Your task to perform on an android device: delete location history Image 0: 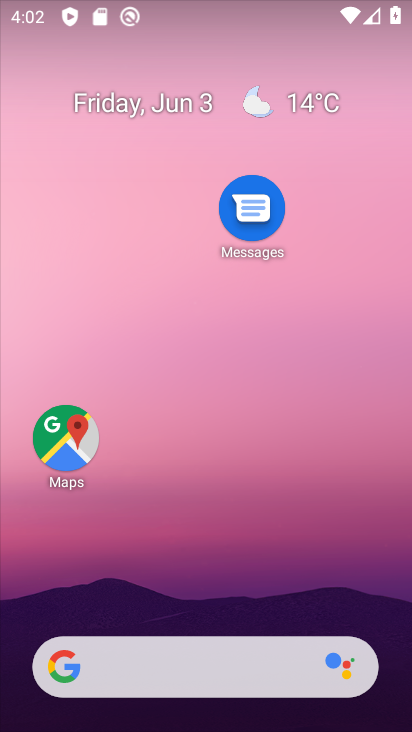
Step 0: drag from (174, 607) to (201, 261)
Your task to perform on an android device: delete location history Image 1: 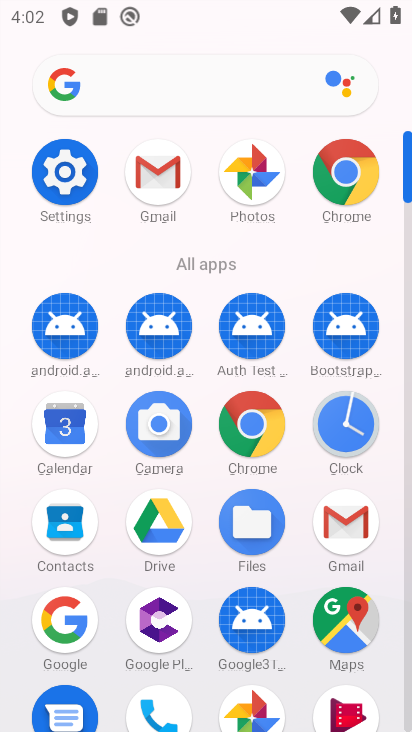
Step 1: click (61, 176)
Your task to perform on an android device: delete location history Image 2: 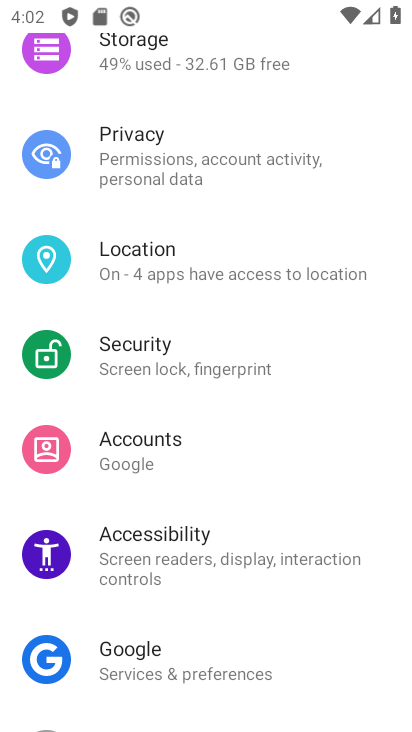
Step 2: click (160, 266)
Your task to perform on an android device: delete location history Image 3: 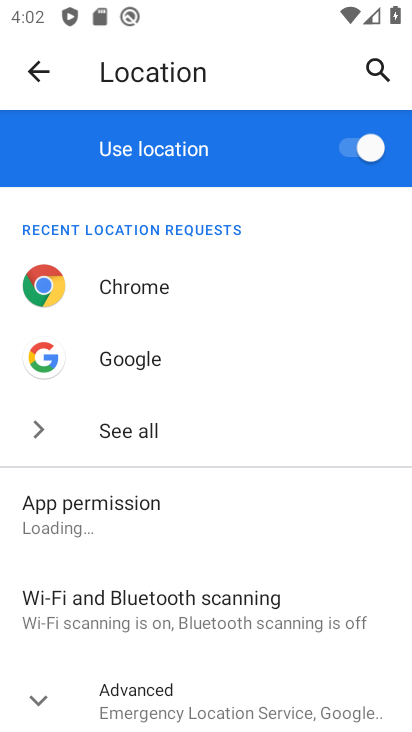
Step 3: drag from (137, 661) to (156, 551)
Your task to perform on an android device: delete location history Image 4: 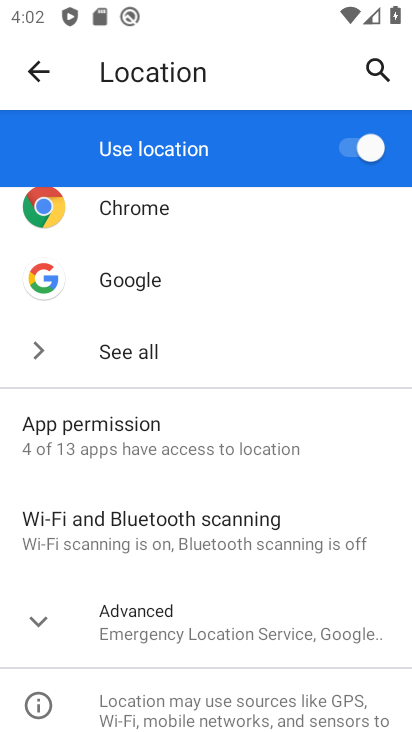
Step 4: click (128, 623)
Your task to perform on an android device: delete location history Image 5: 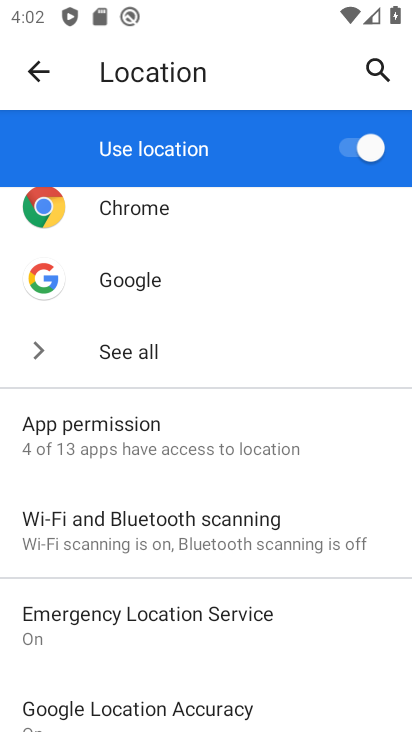
Step 5: drag from (156, 676) to (190, 547)
Your task to perform on an android device: delete location history Image 6: 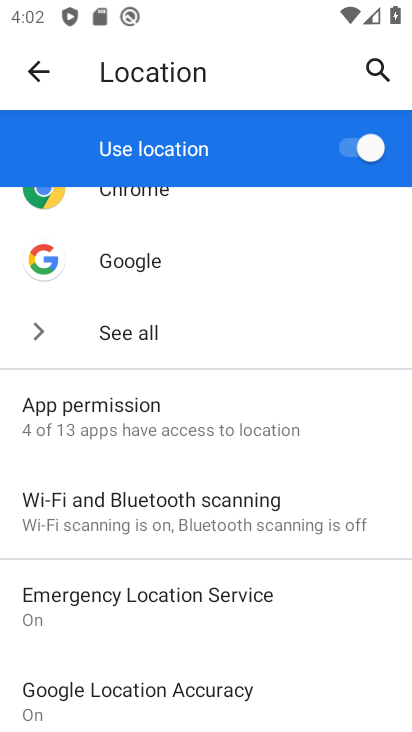
Step 6: drag from (209, 660) to (267, 471)
Your task to perform on an android device: delete location history Image 7: 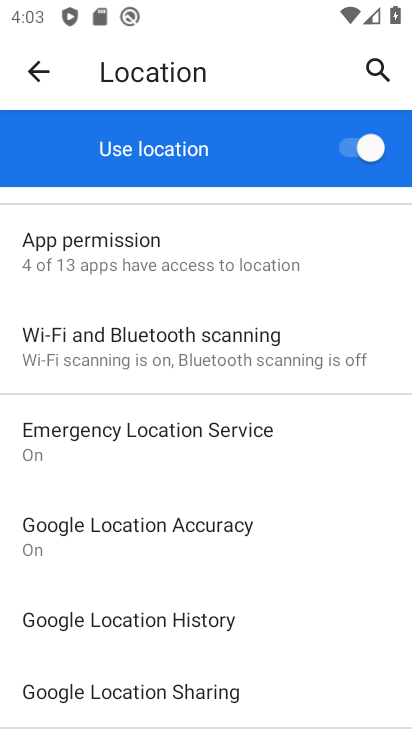
Step 7: click (206, 626)
Your task to perform on an android device: delete location history Image 8: 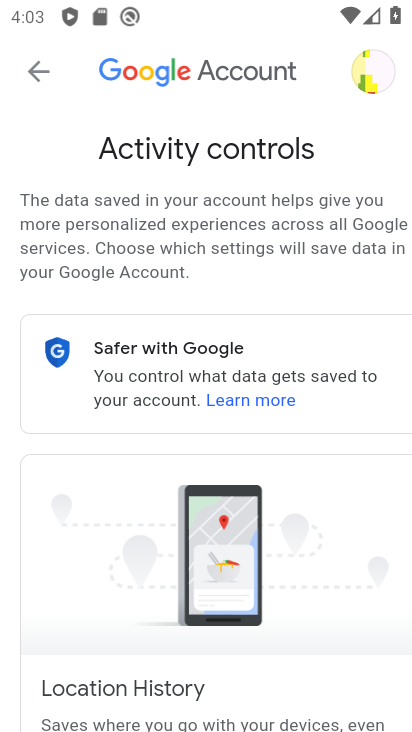
Step 8: drag from (259, 657) to (279, 502)
Your task to perform on an android device: delete location history Image 9: 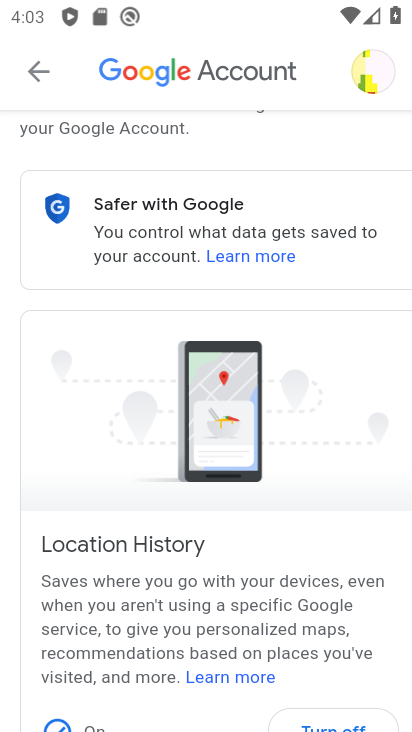
Step 9: drag from (265, 623) to (285, 519)
Your task to perform on an android device: delete location history Image 10: 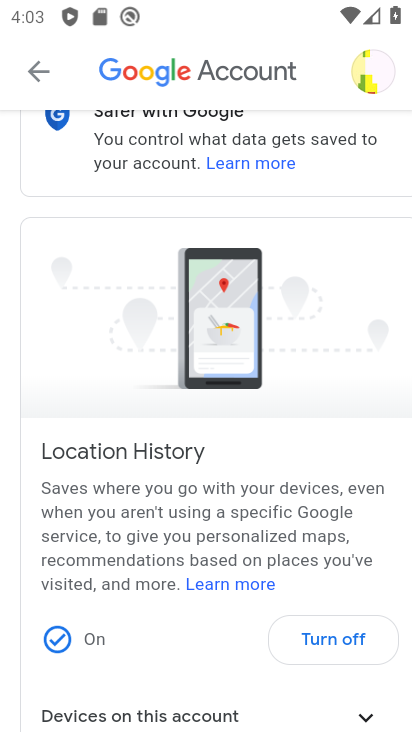
Step 10: drag from (246, 653) to (283, 484)
Your task to perform on an android device: delete location history Image 11: 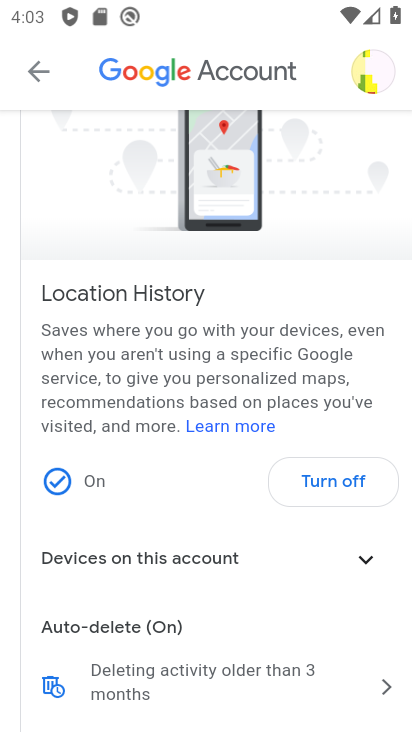
Step 11: drag from (216, 624) to (226, 467)
Your task to perform on an android device: delete location history Image 12: 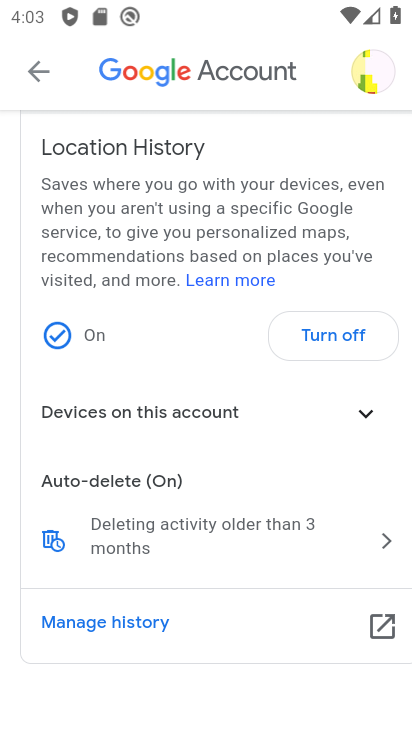
Step 12: click (142, 617)
Your task to perform on an android device: delete location history Image 13: 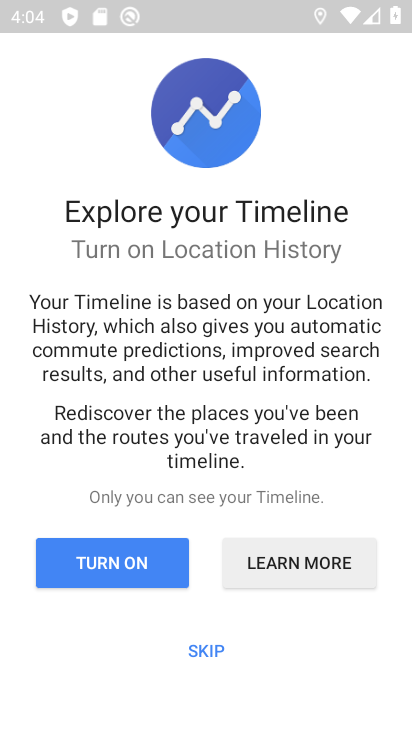
Step 13: click (213, 660)
Your task to perform on an android device: delete location history Image 14: 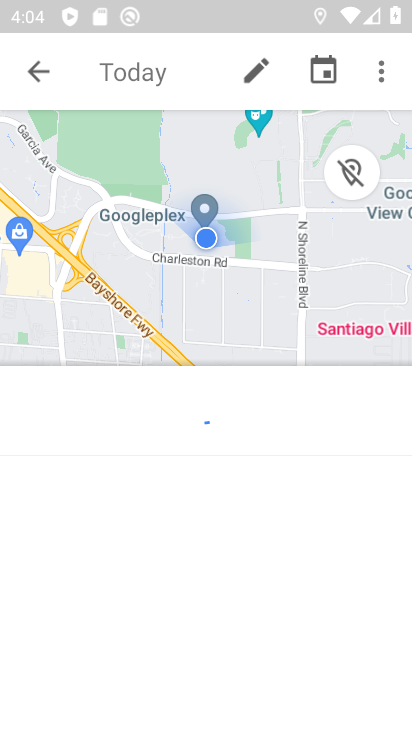
Step 14: click (375, 75)
Your task to perform on an android device: delete location history Image 15: 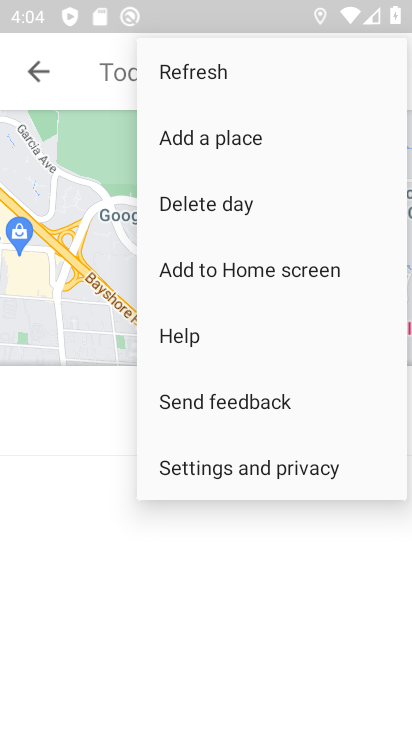
Step 15: click (254, 458)
Your task to perform on an android device: delete location history Image 16: 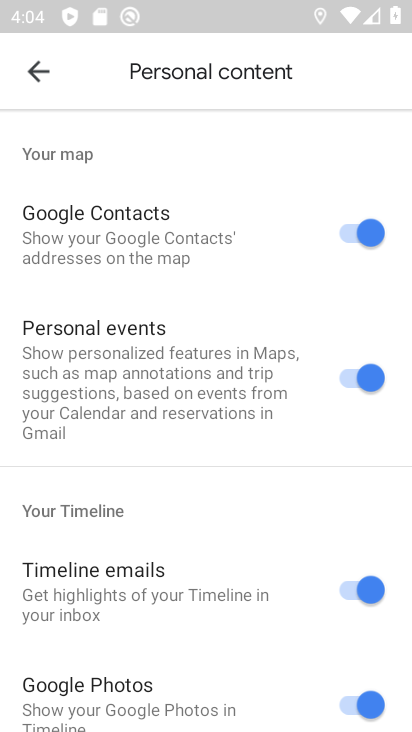
Step 16: drag from (171, 679) to (197, 432)
Your task to perform on an android device: delete location history Image 17: 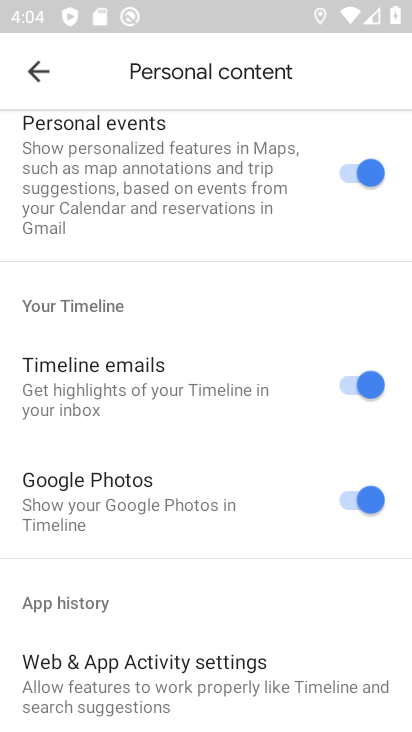
Step 17: drag from (172, 671) to (226, 415)
Your task to perform on an android device: delete location history Image 18: 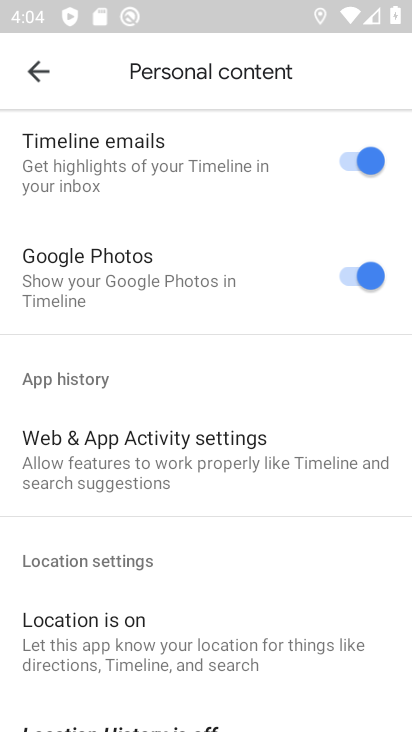
Step 18: drag from (195, 532) to (207, 290)
Your task to perform on an android device: delete location history Image 19: 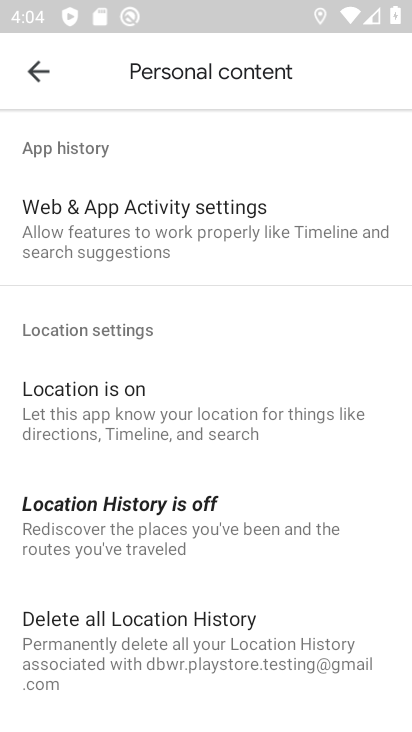
Step 19: click (156, 653)
Your task to perform on an android device: delete location history Image 20: 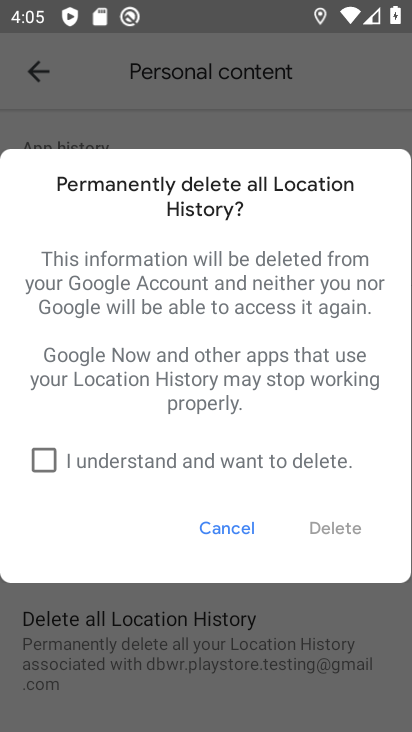
Step 20: click (45, 462)
Your task to perform on an android device: delete location history Image 21: 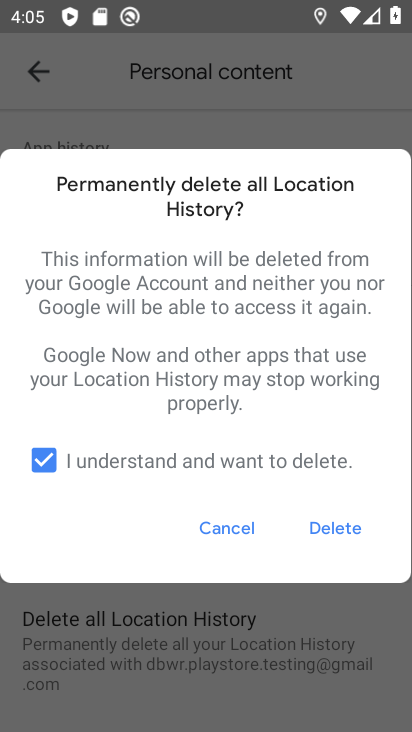
Step 21: click (313, 531)
Your task to perform on an android device: delete location history Image 22: 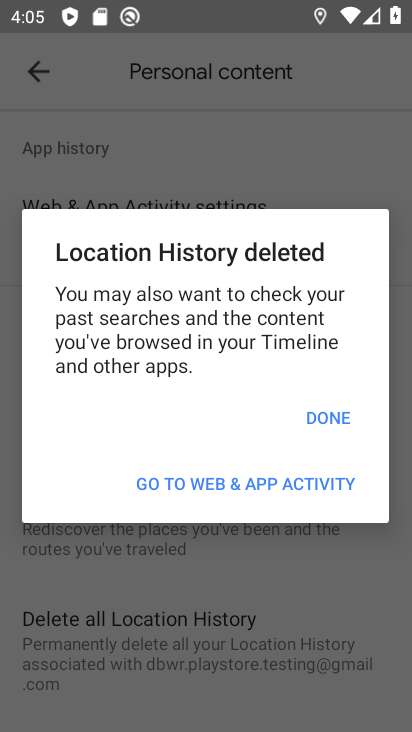
Step 22: task complete